Your task to perform on an android device: turn on the 12-hour format for clock Image 0: 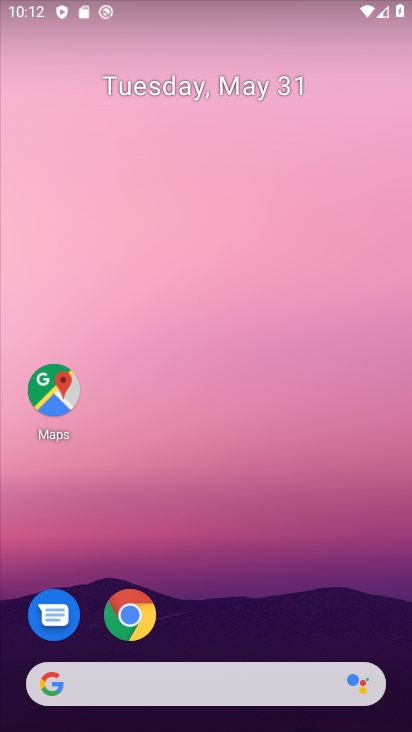
Step 0: task complete